Your task to perform on an android device: see sites visited before in the chrome app Image 0: 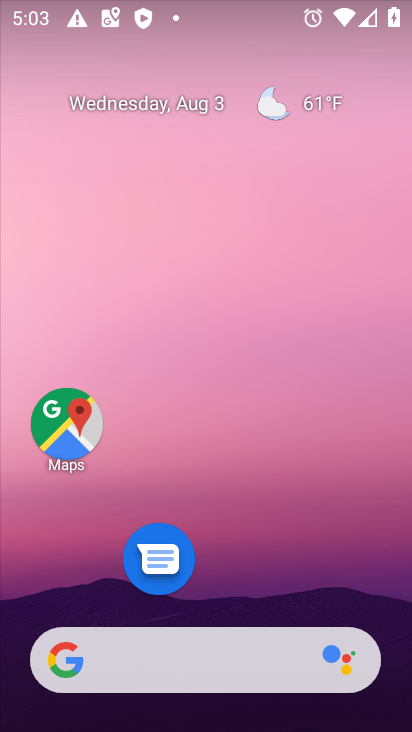
Step 0: drag from (205, 626) to (200, 231)
Your task to perform on an android device: see sites visited before in the chrome app Image 1: 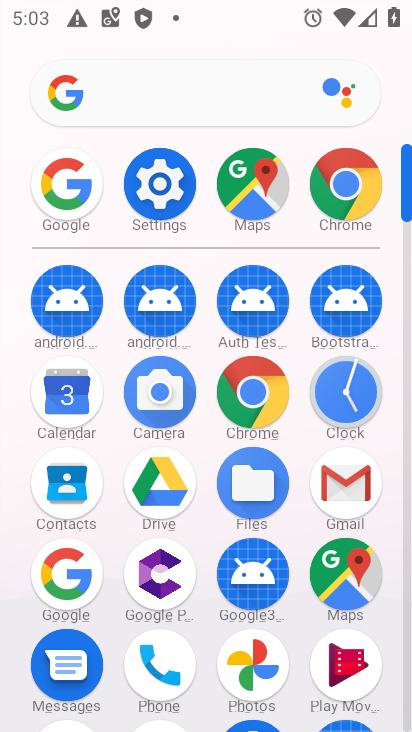
Step 1: click (251, 401)
Your task to perform on an android device: see sites visited before in the chrome app Image 2: 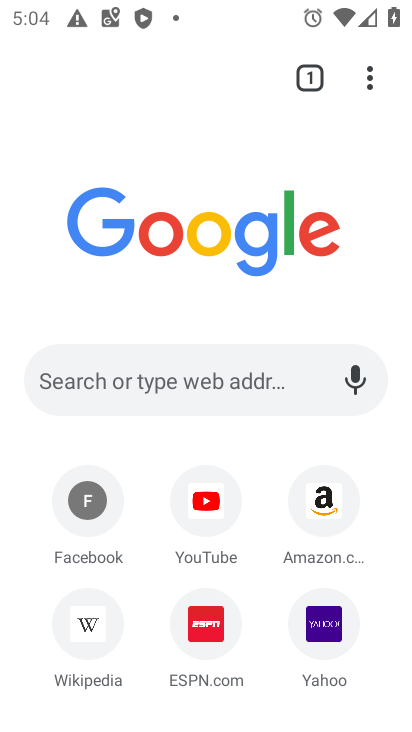
Step 2: task complete